Your task to perform on an android device: find photos in the google photos app Image 0: 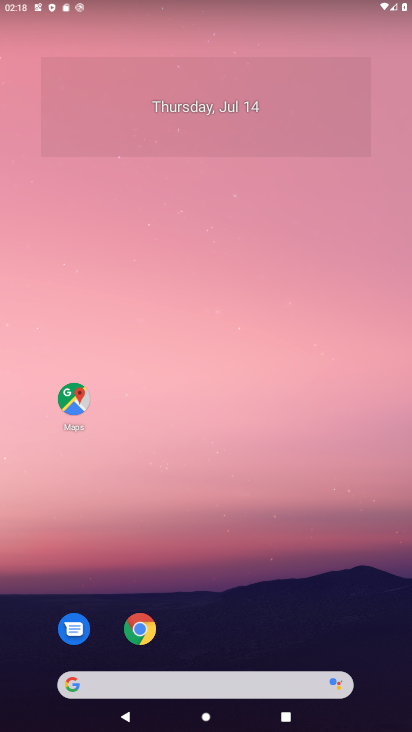
Step 0: drag from (234, 634) to (266, 132)
Your task to perform on an android device: find photos in the google photos app Image 1: 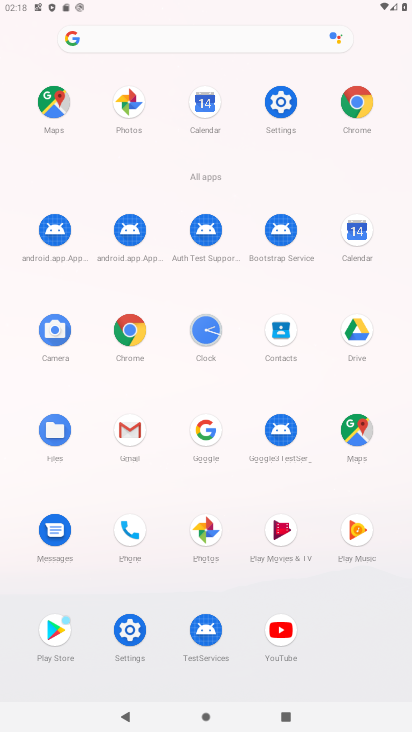
Step 1: click (212, 543)
Your task to perform on an android device: find photos in the google photos app Image 2: 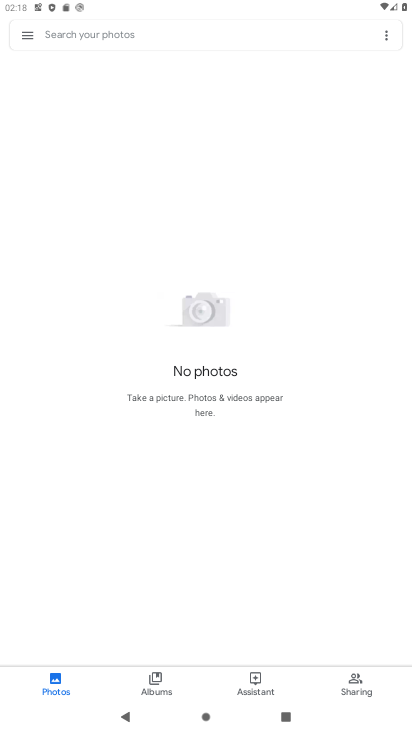
Step 2: task complete